Your task to perform on an android device: turn on priority inbox in the gmail app Image 0: 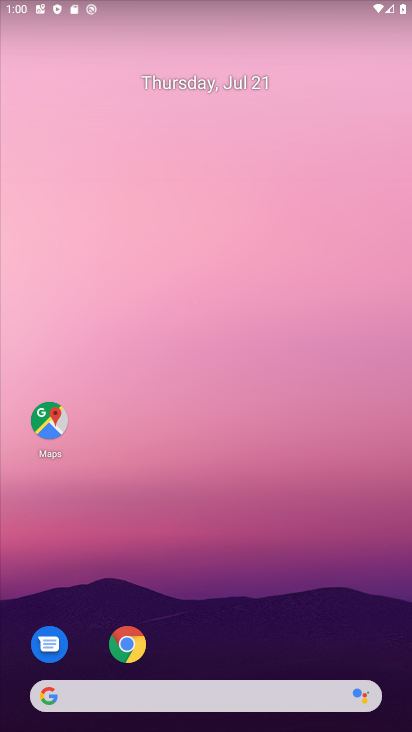
Step 0: drag from (188, 664) to (224, 311)
Your task to perform on an android device: turn on priority inbox in the gmail app Image 1: 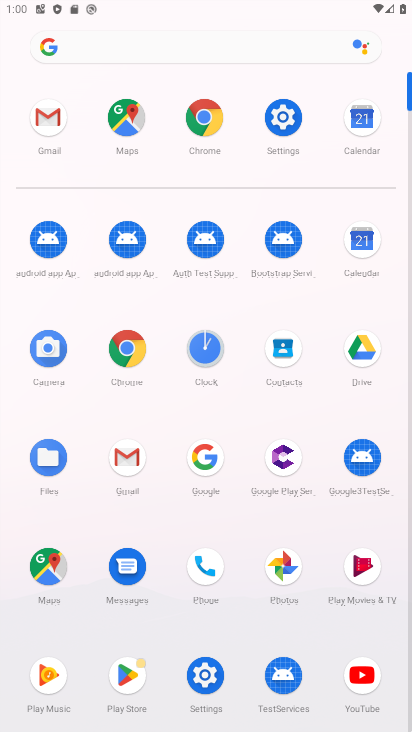
Step 1: click (115, 464)
Your task to perform on an android device: turn on priority inbox in the gmail app Image 2: 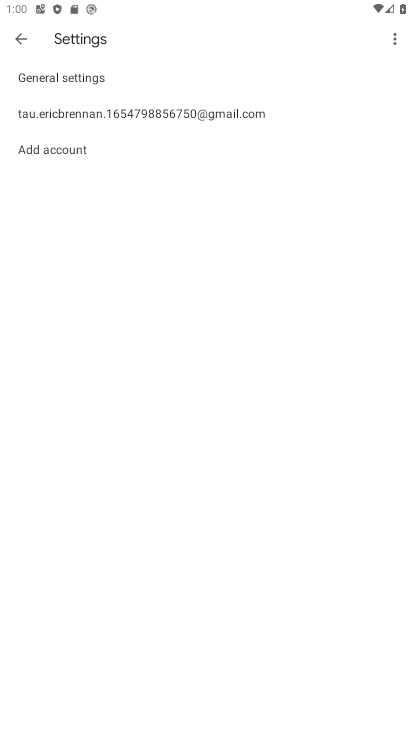
Step 2: click (73, 117)
Your task to perform on an android device: turn on priority inbox in the gmail app Image 3: 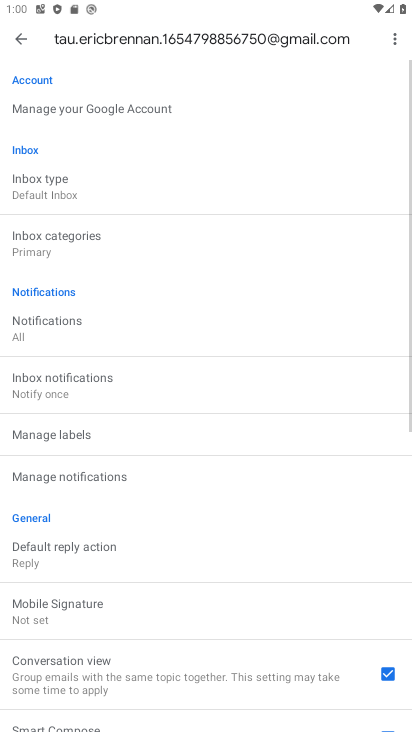
Step 3: click (50, 190)
Your task to perform on an android device: turn on priority inbox in the gmail app Image 4: 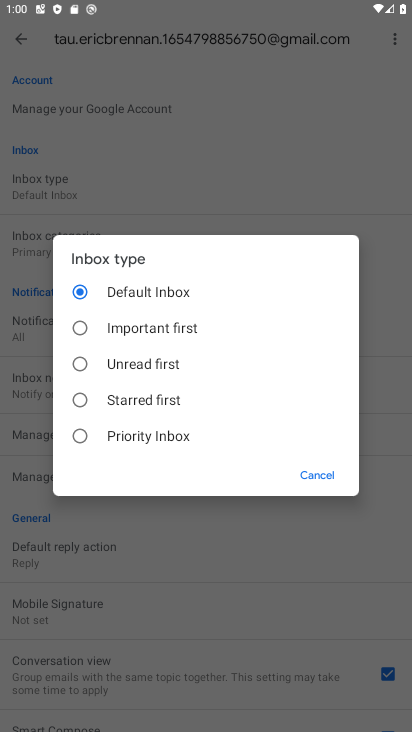
Step 4: click (135, 436)
Your task to perform on an android device: turn on priority inbox in the gmail app Image 5: 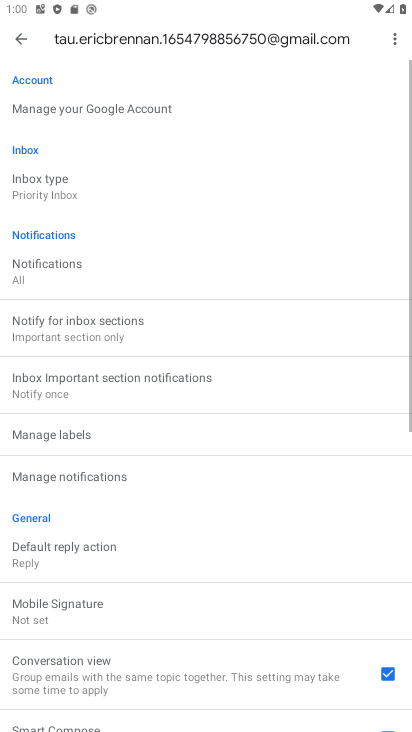
Step 5: task complete